Your task to perform on an android device: turn off sleep mode Image 0: 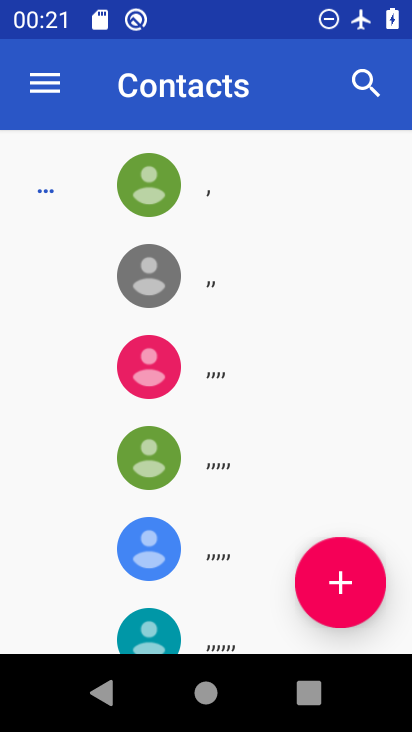
Step 0: press home button
Your task to perform on an android device: turn off sleep mode Image 1: 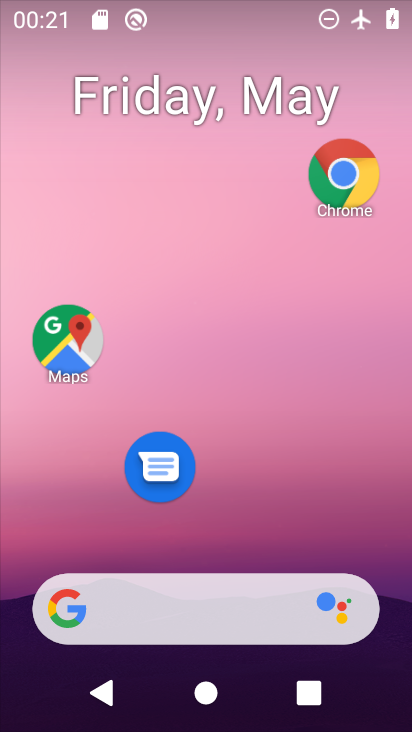
Step 1: drag from (247, 465) to (241, 224)
Your task to perform on an android device: turn off sleep mode Image 2: 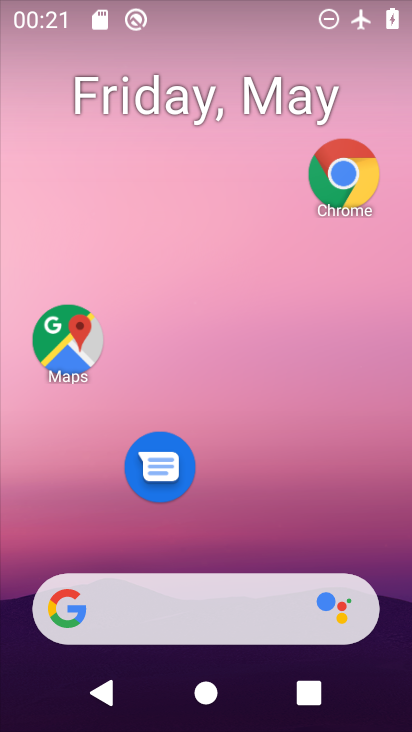
Step 2: drag from (255, 482) to (264, 230)
Your task to perform on an android device: turn off sleep mode Image 3: 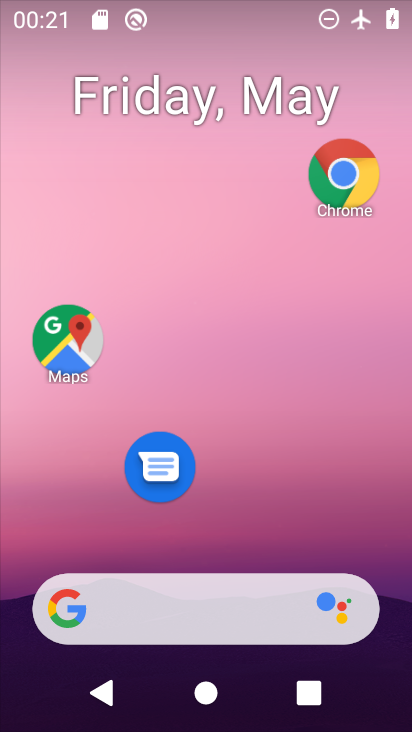
Step 3: drag from (237, 549) to (268, 165)
Your task to perform on an android device: turn off sleep mode Image 4: 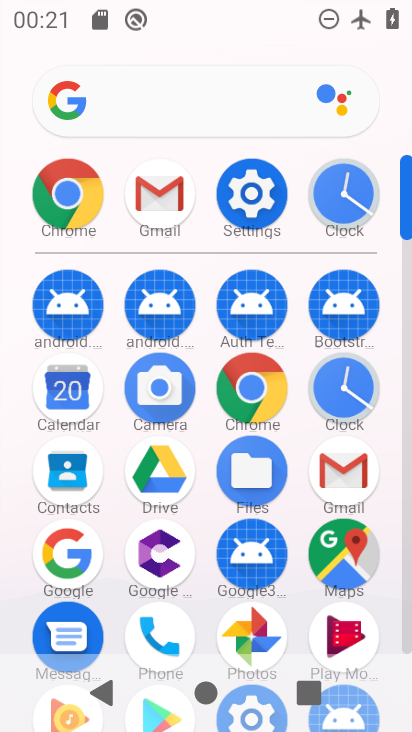
Step 4: click (259, 200)
Your task to perform on an android device: turn off sleep mode Image 5: 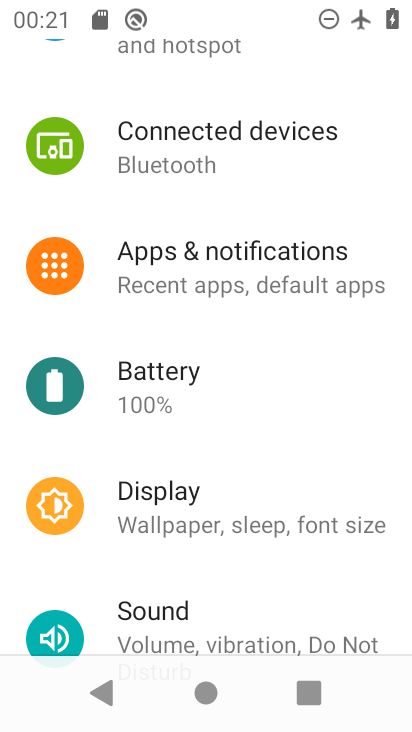
Step 5: task complete